Your task to perform on an android device: Go to Google maps Image 0: 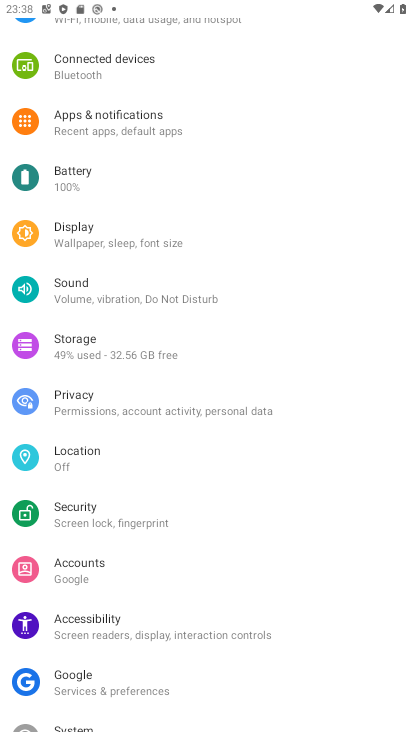
Step 0: press home button
Your task to perform on an android device: Go to Google maps Image 1: 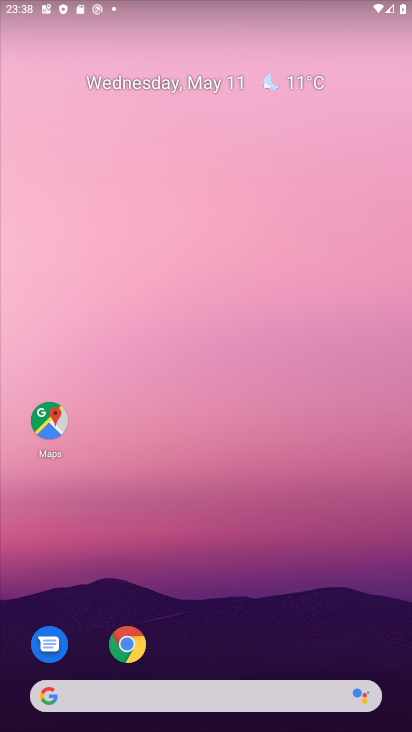
Step 1: click (50, 417)
Your task to perform on an android device: Go to Google maps Image 2: 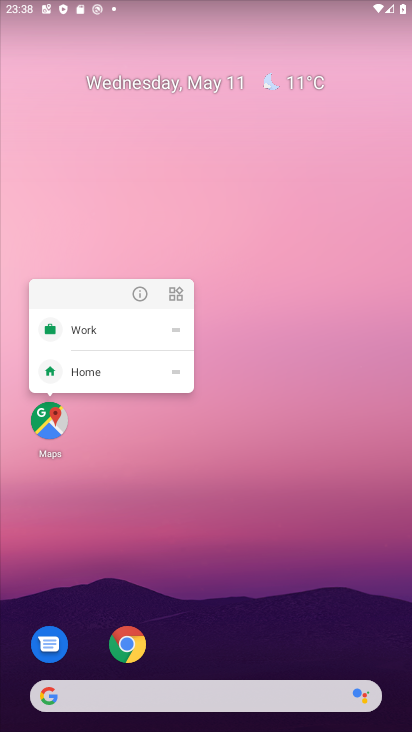
Step 2: click (48, 413)
Your task to perform on an android device: Go to Google maps Image 3: 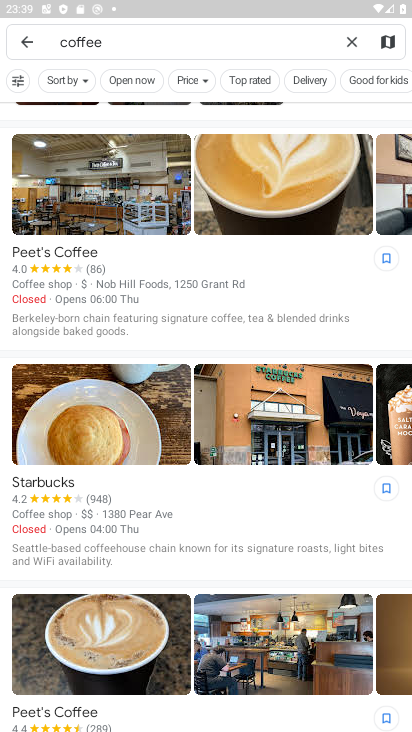
Step 3: click (350, 45)
Your task to perform on an android device: Go to Google maps Image 4: 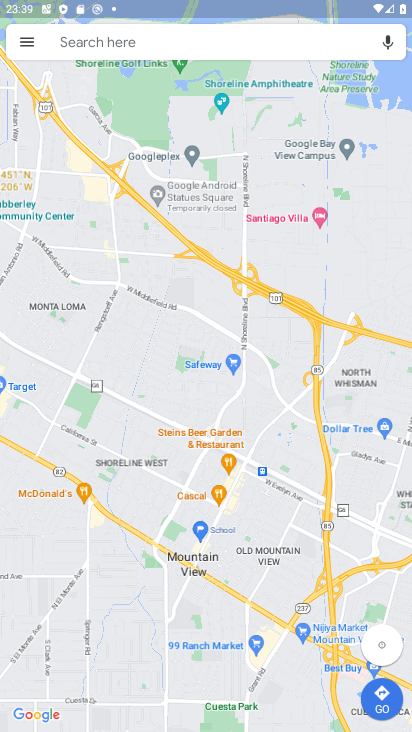
Step 4: click (79, 37)
Your task to perform on an android device: Go to Google maps Image 5: 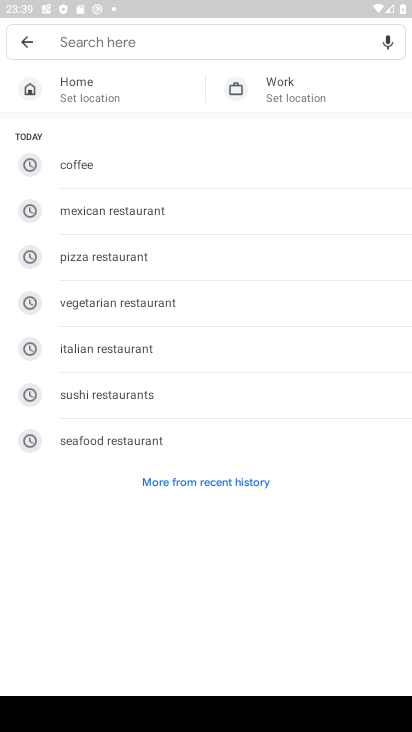
Step 5: click (25, 42)
Your task to perform on an android device: Go to Google maps Image 6: 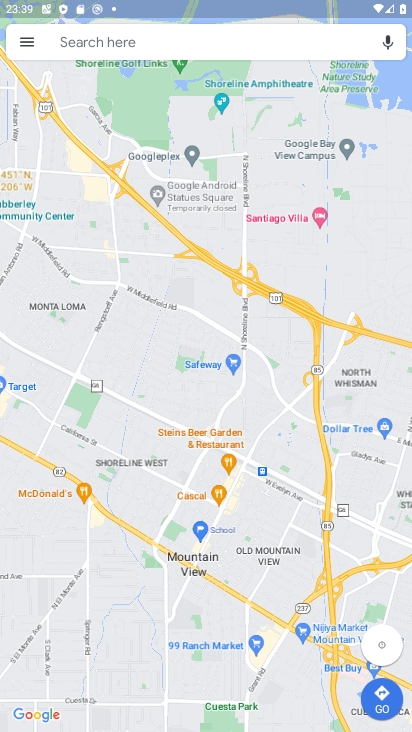
Step 6: task complete